Your task to perform on an android device: Search for hotels in Atlanta Image 0: 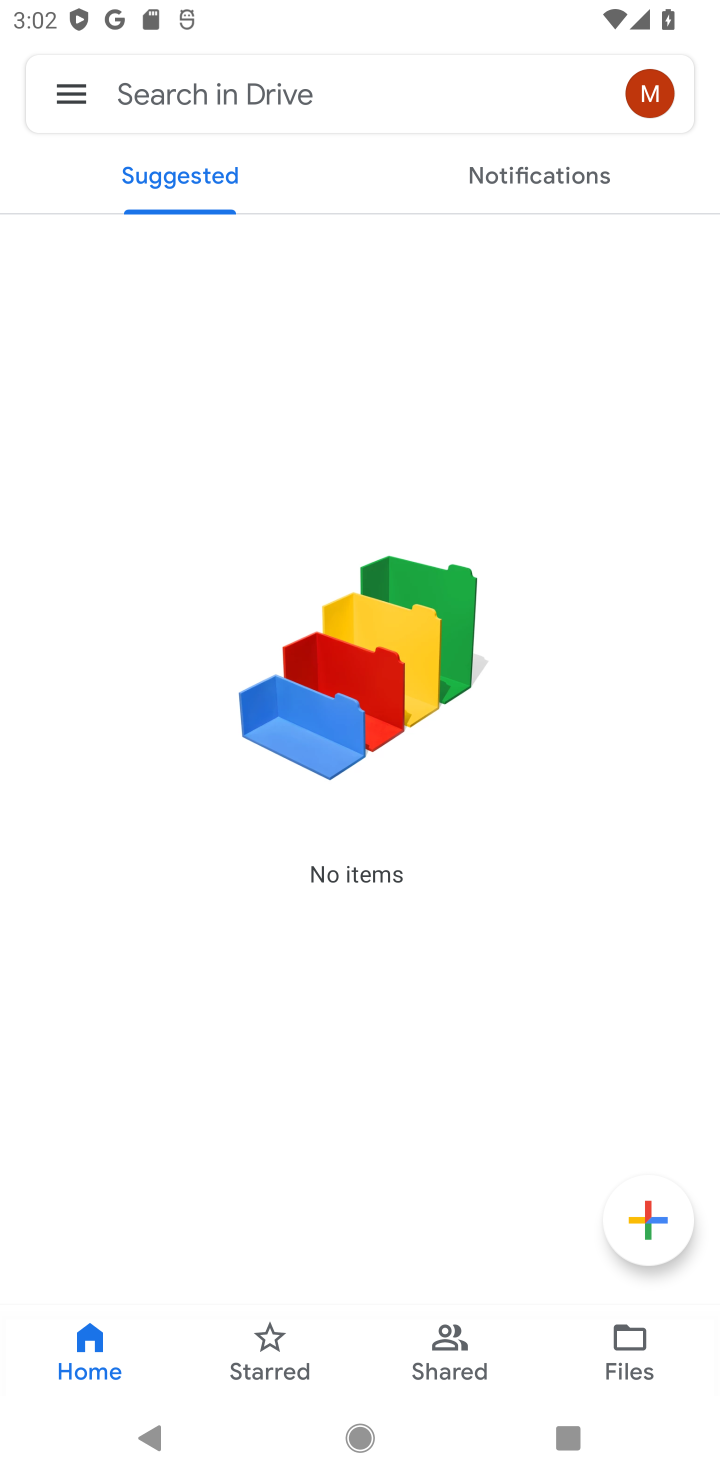
Step 0: press home button
Your task to perform on an android device: Search for hotels in Atlanta Image 1: 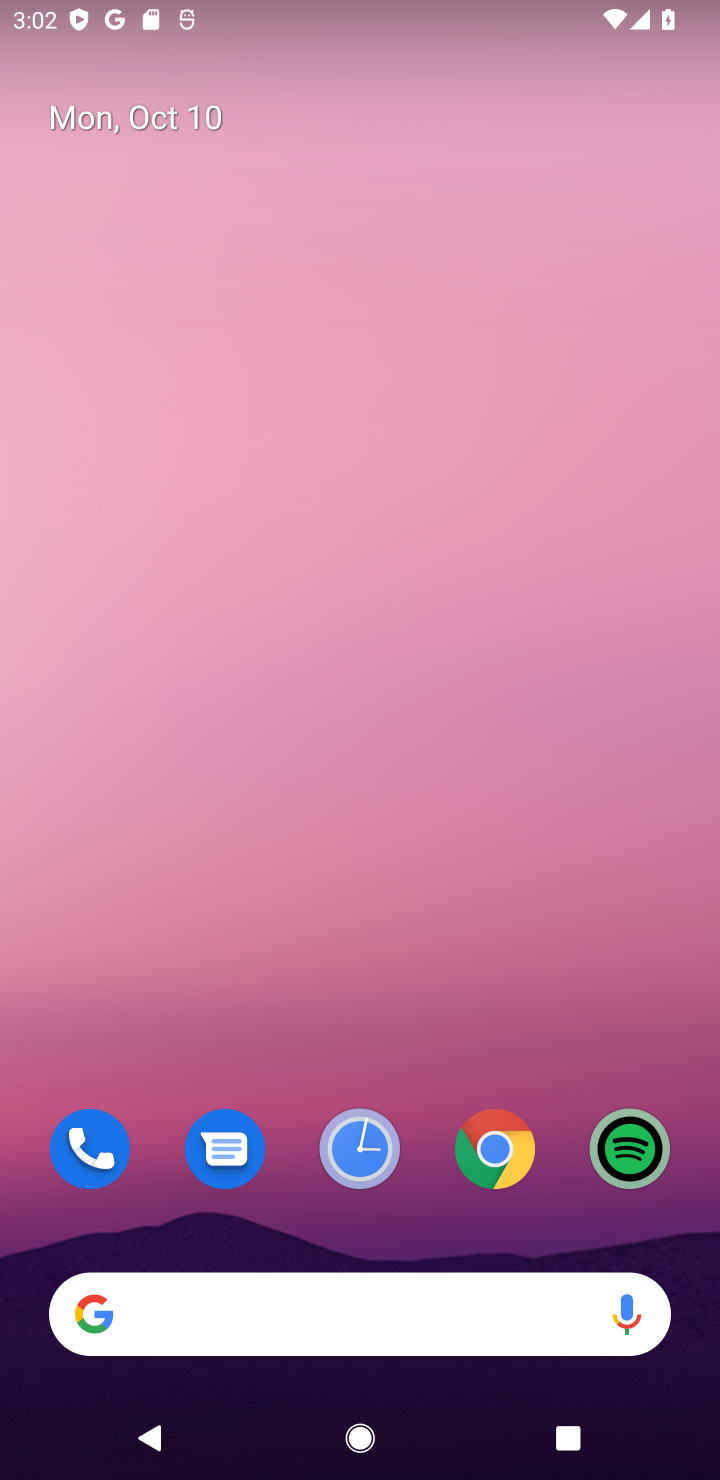
Step 1: click (363, 1321)
Your task to perform on an android device: Search for hotels in Atlanta Image 2: 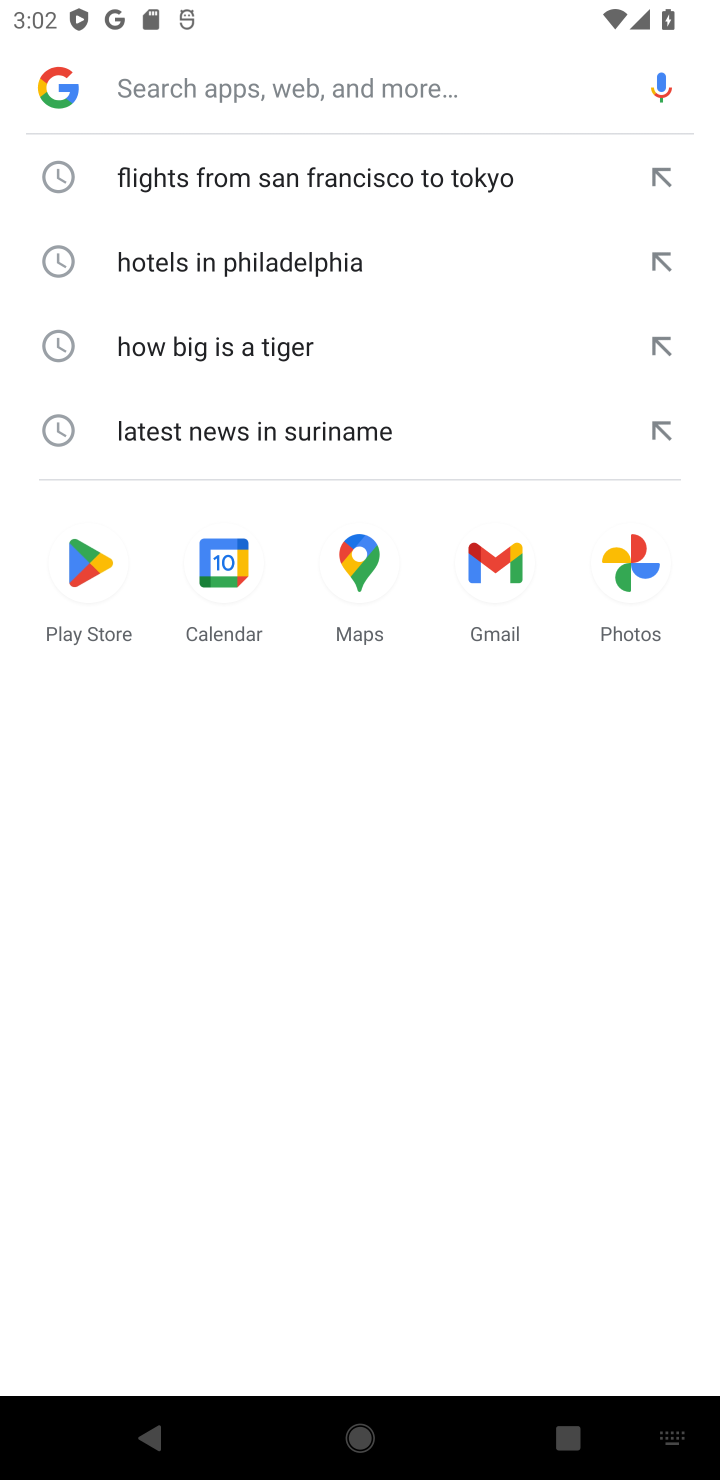
Step 2: type " hotels in Atlanta"
Your task to perform on an android device: Search for hotels in Atlanta Image 3: 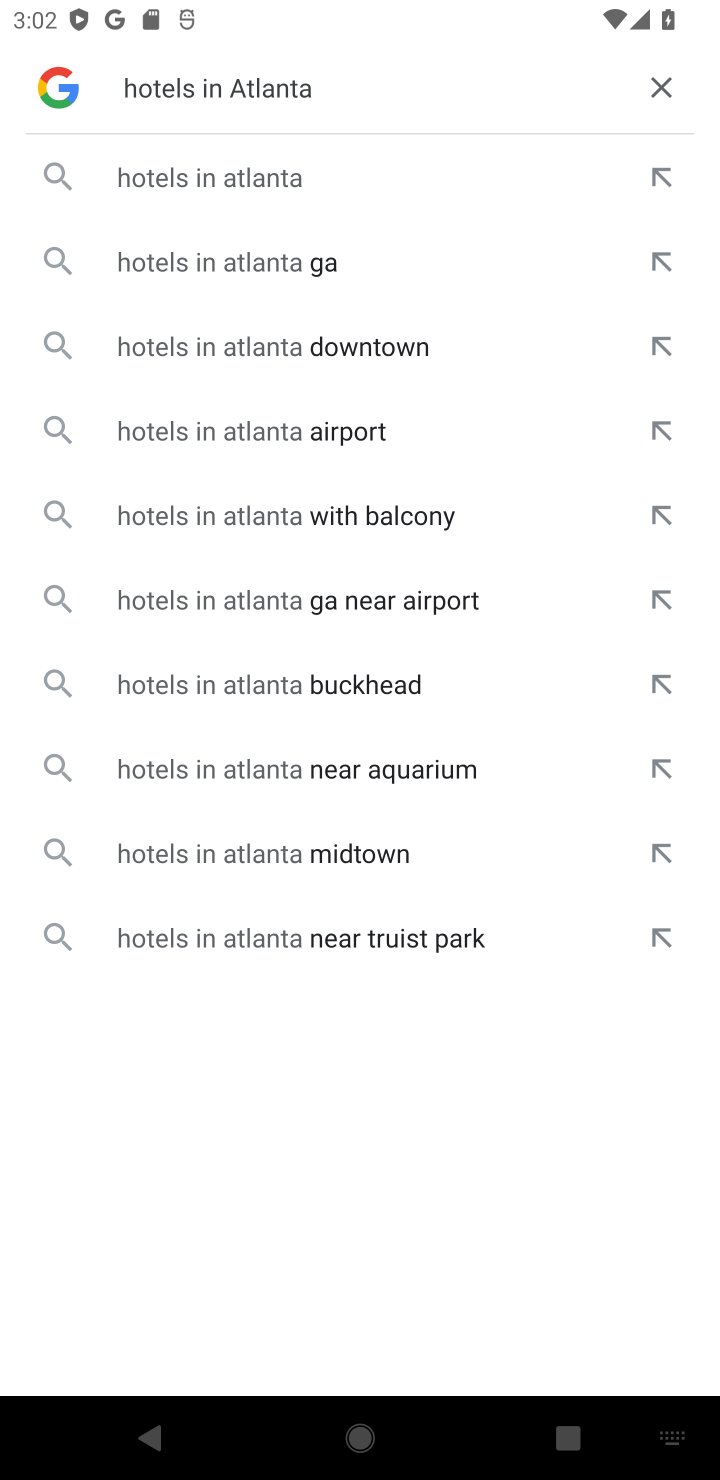
Step 3: click (323, 196)
Your task to perform on an android device: Search for hotels in Atlanta Image 4: 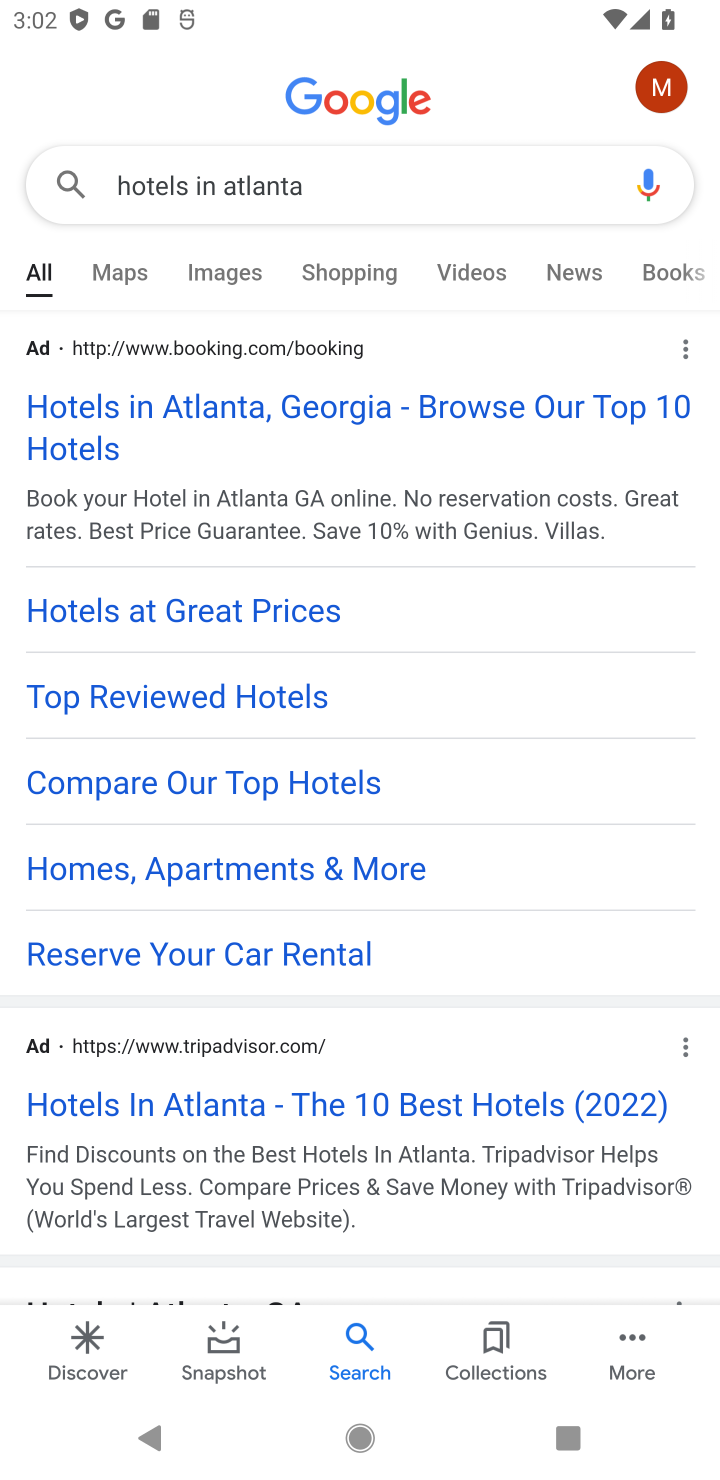
Step 4: task complete